Your task to perform on an android device: turn on priority inbox in the gmail app Image 0: 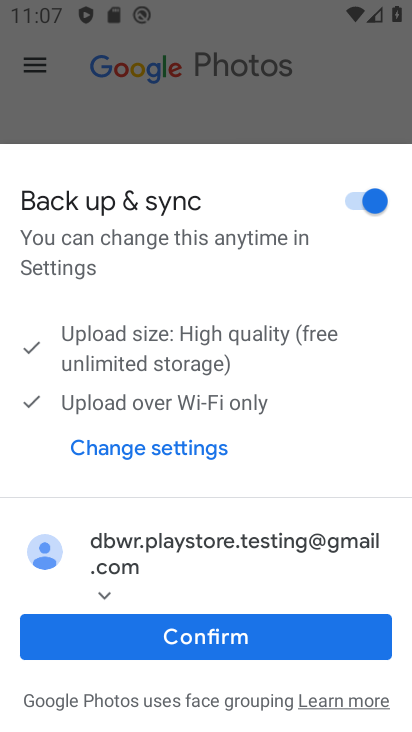
Step 0: press home button
Your task to perform on an android device: turn on priority inbox in the gmail app Image 1: 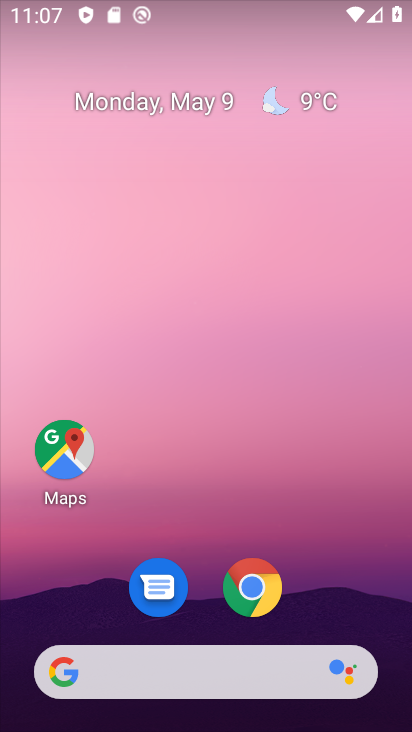
Step 1: drag from (87, 400) to (127, 209)
Your task to perform on an android device: turn on priority inbox in the gmail app Image 2: 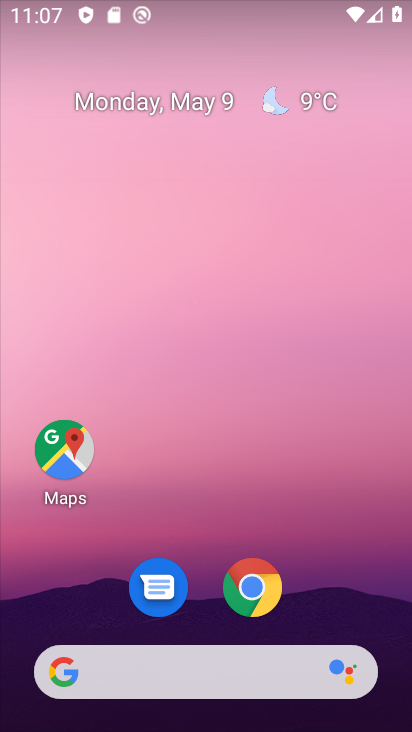
Step 2: drag from (193, 600) to (232, 230)
Your task to perform on an android device: turn on priority inbox in the gmail app Image 3: 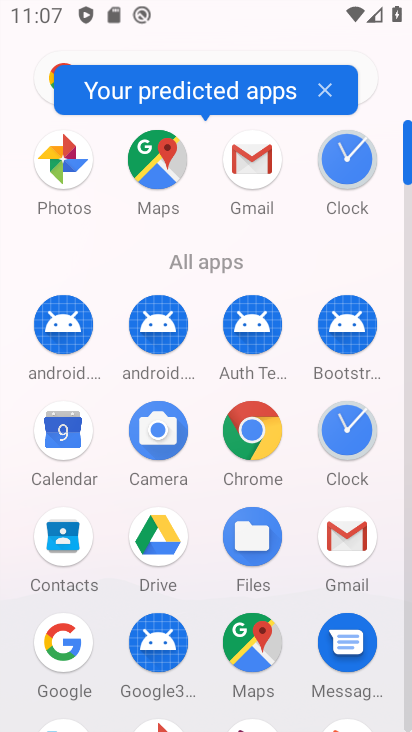
Step 3: click (259, 175)
Your task to perform on an android device: turn on priority inbox in the gmail app Image 4: 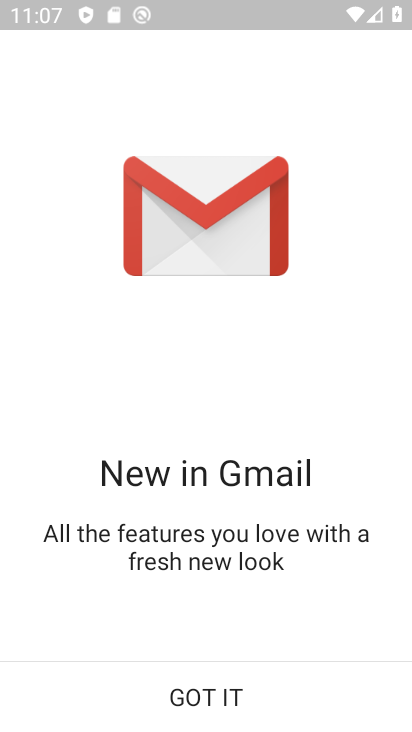
Step 4: click (190, 705)
Your task to perform on an android device: turn on priority inbox in the gmail app Image 5: 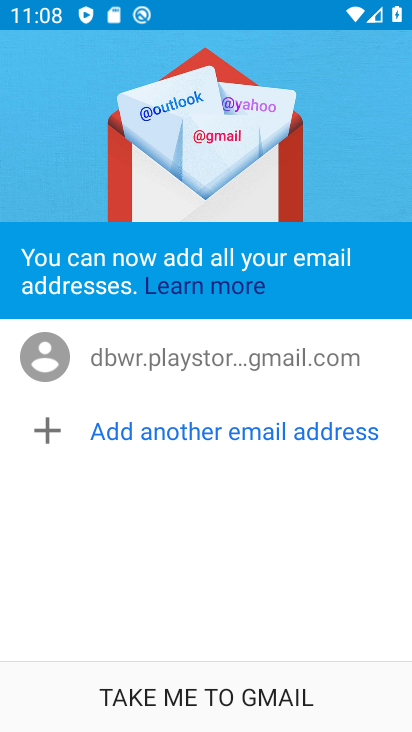
Step 5: click (225, 700)
Your task to perform on an android device: turn on priority inbox in the gmail app Image 6: 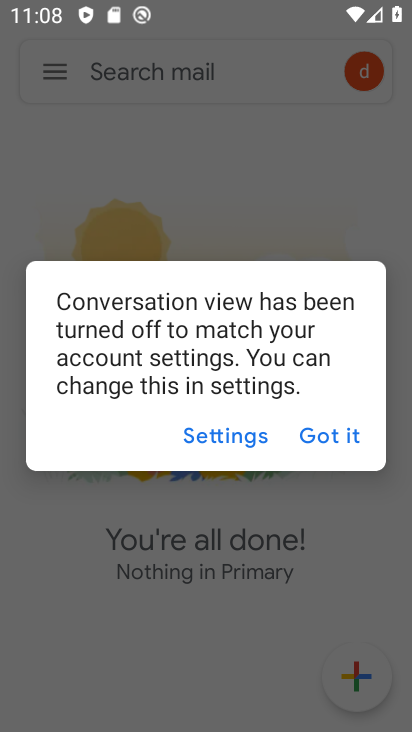
Step 6: click (317, 445)
Your task to perform on an android device: turn on priority inbox in the gmail app Image 7: 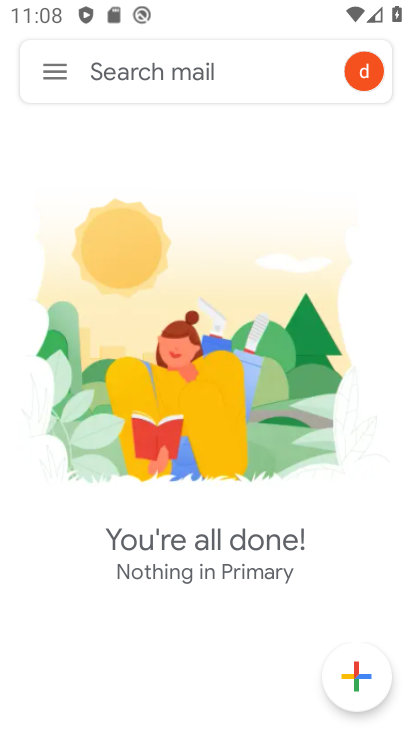
Step 7: click (64, 64)
Your task to perform on an android device: turn on priority inbox in the gmail app Image 8: 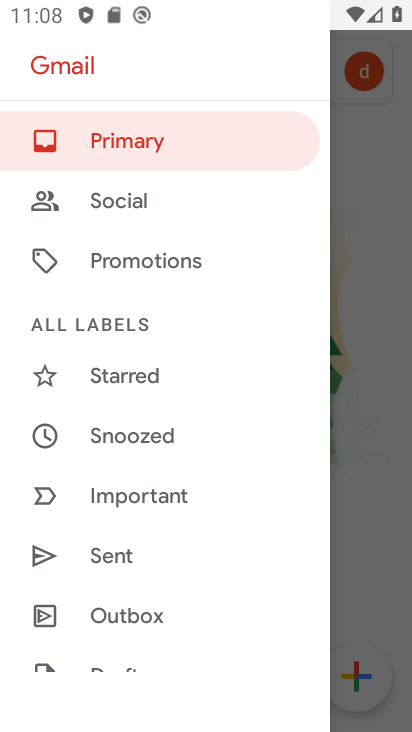
Step 8: drag from (164, 572) to (219, 172)
Your task to perform on an android device: turn on priority inbox in the gmail app Image 9: 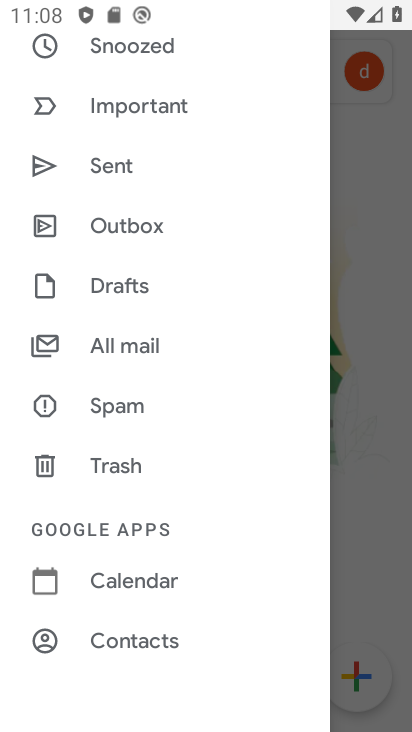
Step 9: drag from (166, 576) to (210, 204)
Your task to perform on an android device: turn on priority inbox in the gmail app Image 10: 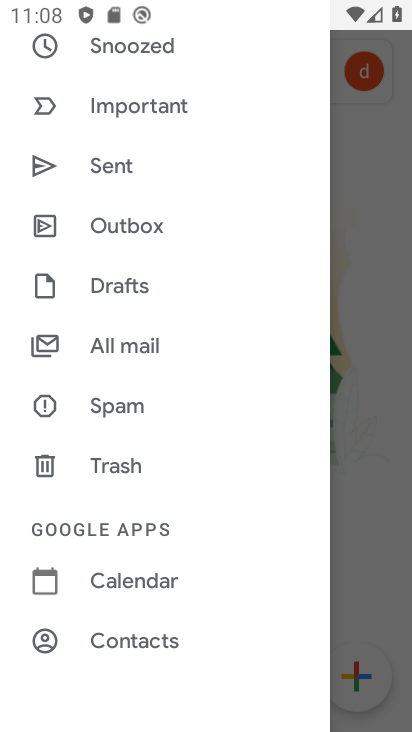
Step 10: drag from (108, 624) to (175, 313)
Your task to perform on an android device: turn on priority inbox in the gmail app Image 11: 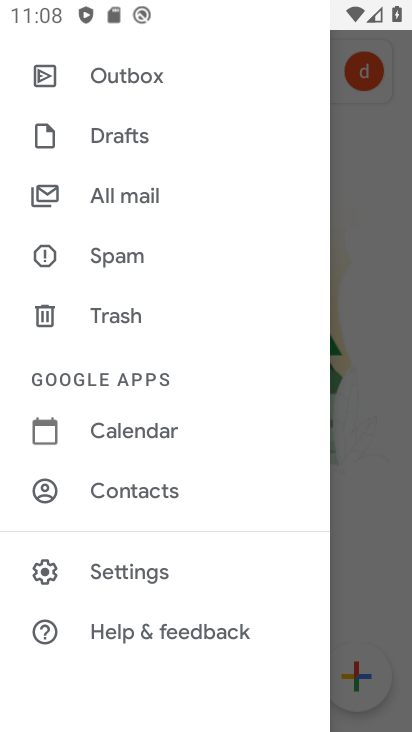
Step 11: click (112, 580)
Your task to perform on an android device: turn on priority inbox in the gmail app Image 12: 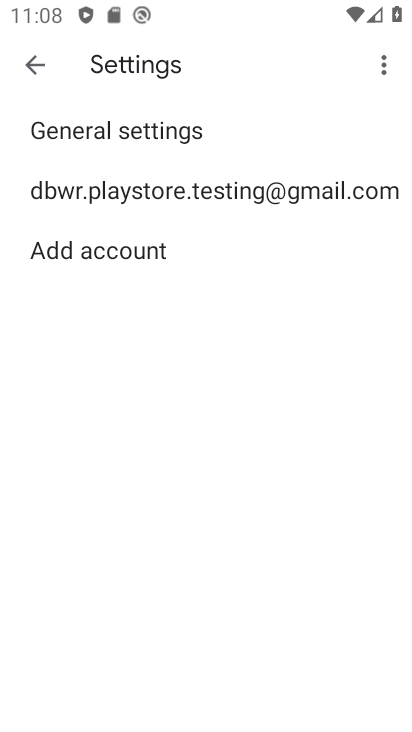
Step 12: click (157, 189)
Your task to perform on an android device: turn on priority inbox in the gmail app Image 13: 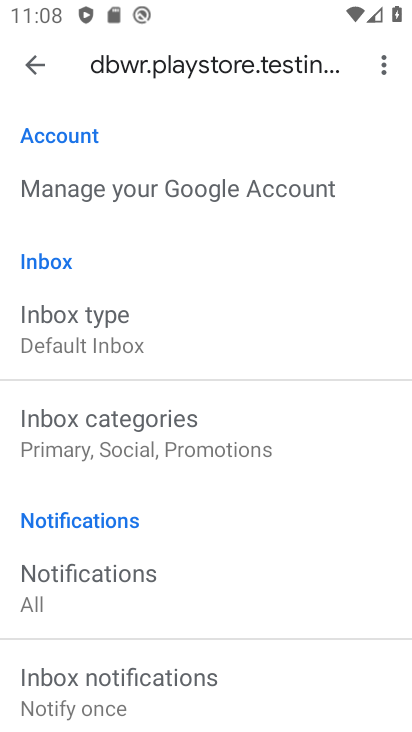
Step 13: click (154, 338)
Your task to perform on an android device: turn on priority inbox in the gmail app Image 14: 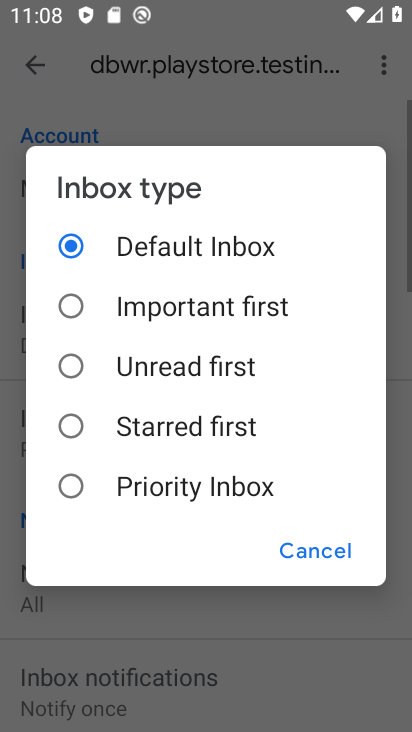
Step 14: click (151, 489)
Your task to perform on an android device: turn on priority inbox in the gmail app Image 15: 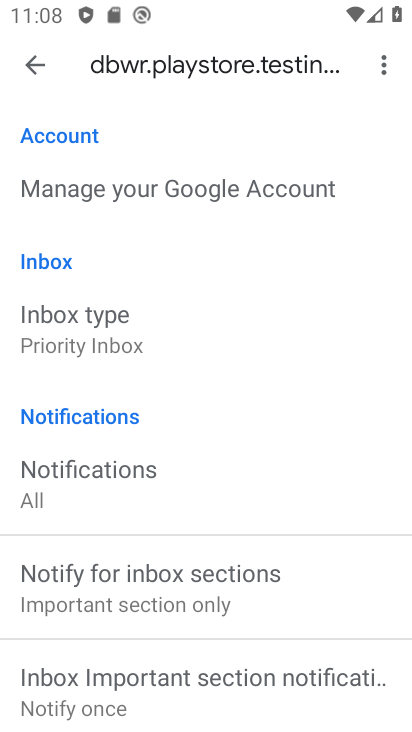
Step 15: task complete